Your task to perform on an android device: Open wifi settings Image 0: 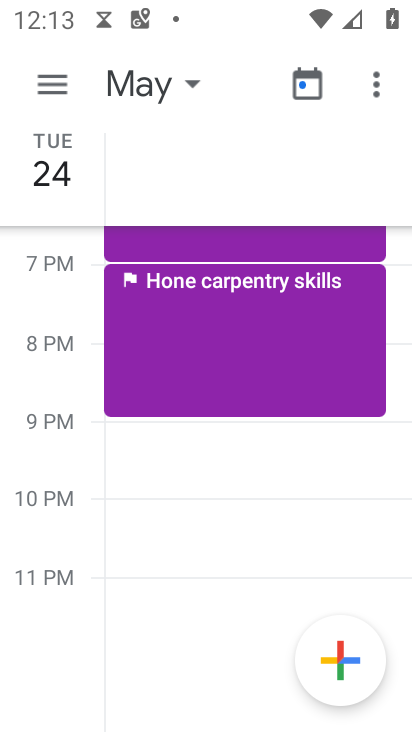
Step 0: press home button
Your task to perform on an android device: Open wifi settings Image 1: 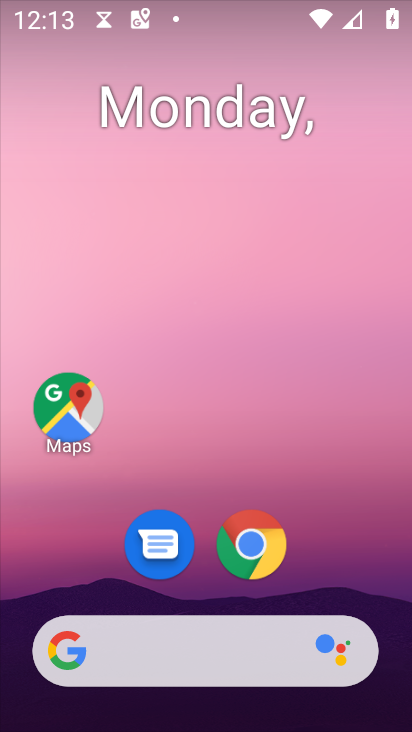
Step 1: drag from (354, 522) to (373, 309)
Your task to perform on an android device: Open wifi settings Image 2: 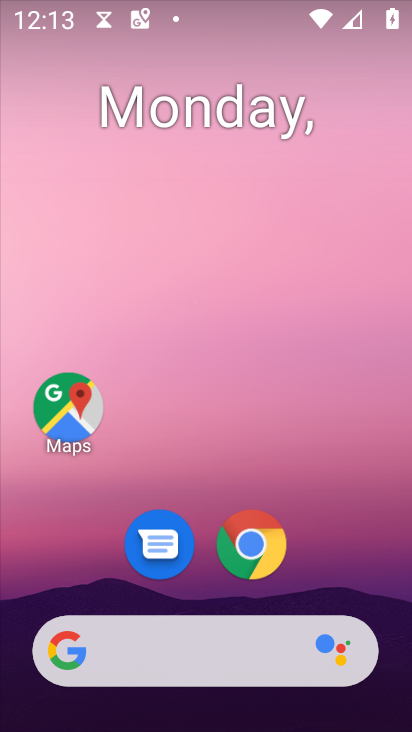
Step 2: drag from (279, 536) to (324, 262)
Your task to perform on an android device: Open wifi settings Image 3: 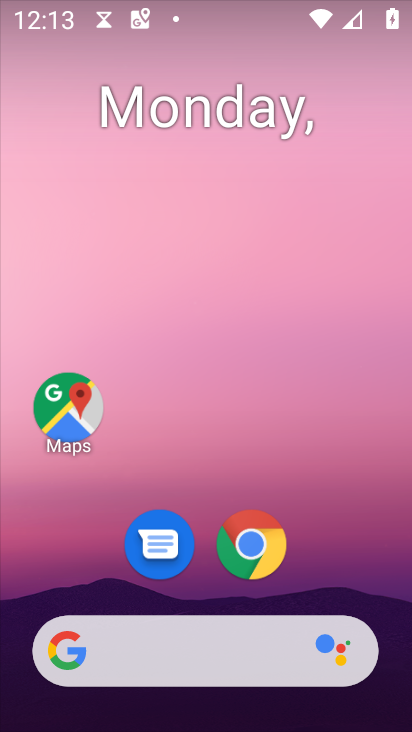
Step 3: click (315, 318)
Your task to perform on an android device: Open wifi settings Image 4: 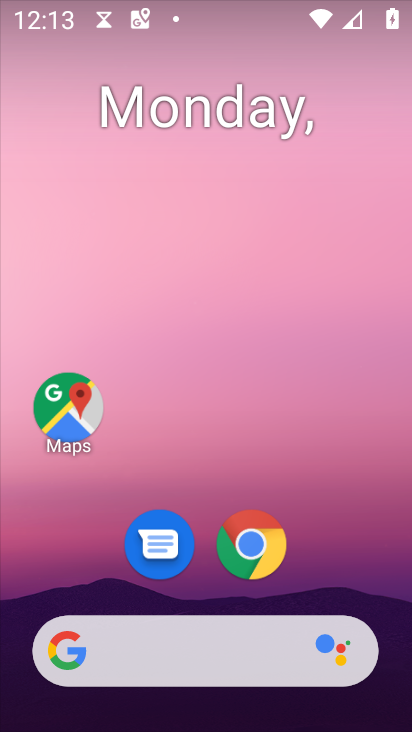
Step 4: drag from (308, 524) to (317, 282)
Your task to perform on an android device: Open wifi settings Image 5: 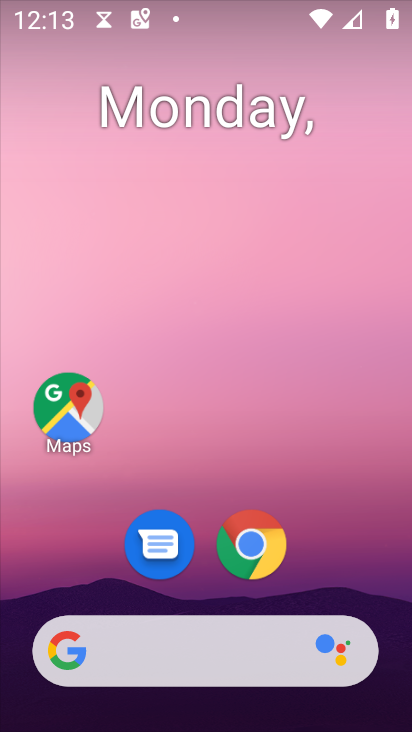
Step 5: drag from (294, 527) to (307, 287)
Your task to perform on an android device: Open wifi settings Image 6: 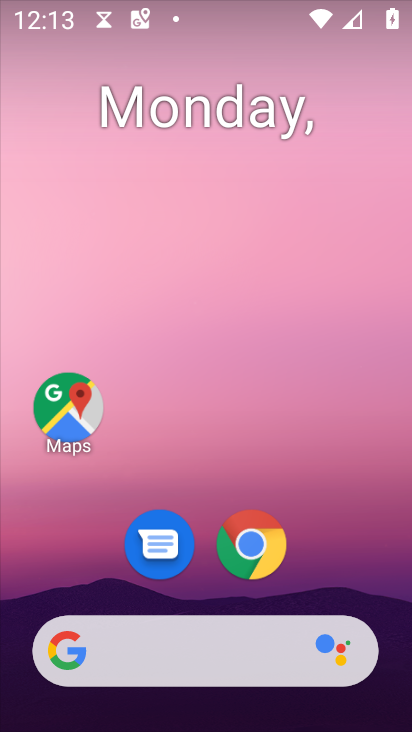
Step 6: drag from (229, 627) to (275, 297)
Your task to perform on an android device: Open wifi settings Image 7: 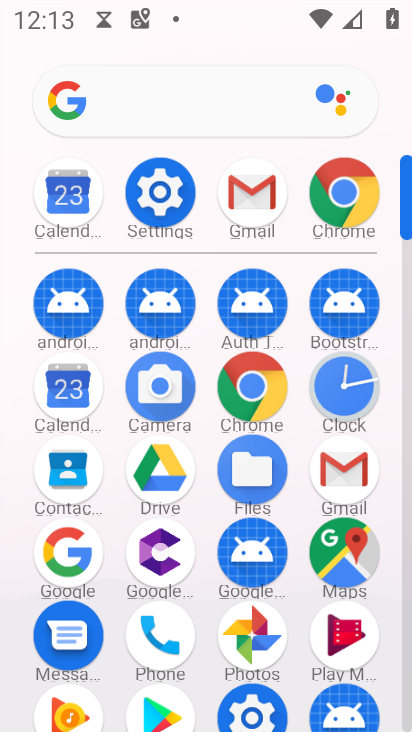
Step 7: click (143, 208)
Your task to perform on an android device: Open wifi settings Image 8: 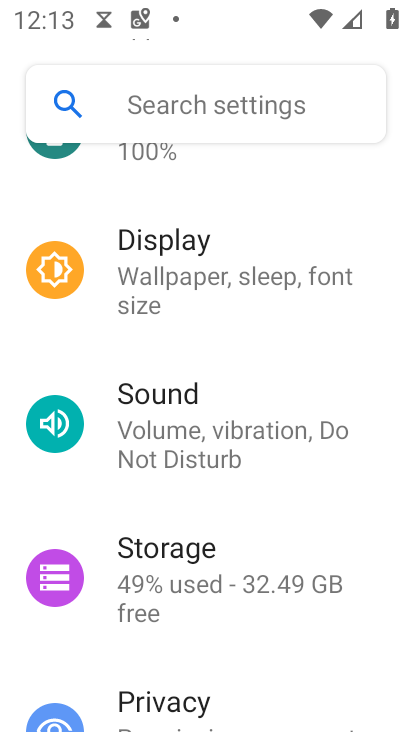
Step 8: drag from (317, 188) to (301, 662)
Your task to perform on an android device: Open wifi settings Image 9: 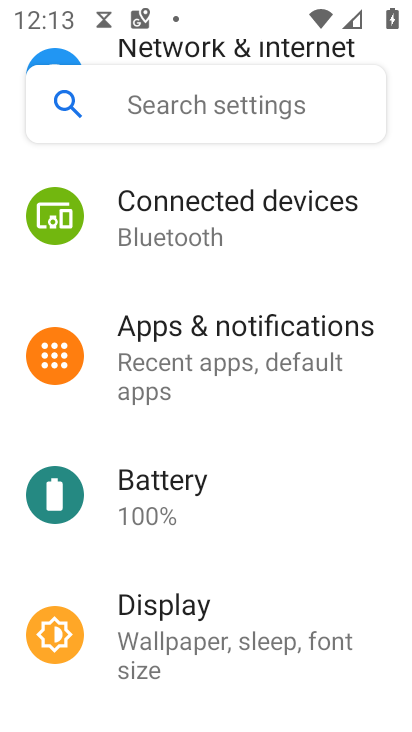
Step 9: drag from (300, 267) to (284, 650)
Your task to perform on an android device: Open wifi settings Image 10: 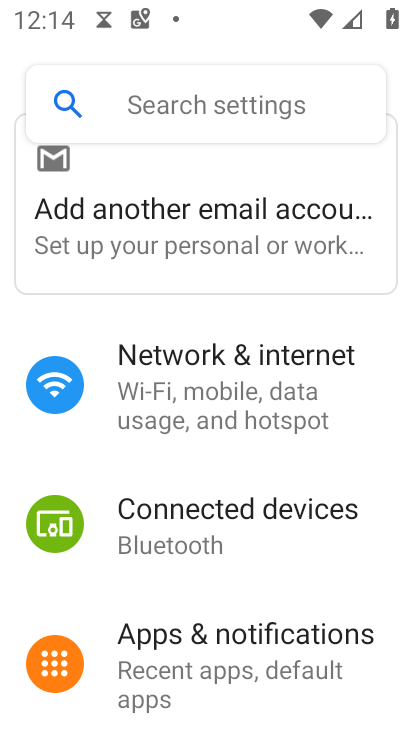
Step 10: click (205, 391)
Your task to perform on an android device: Open wifi settings Image 11: 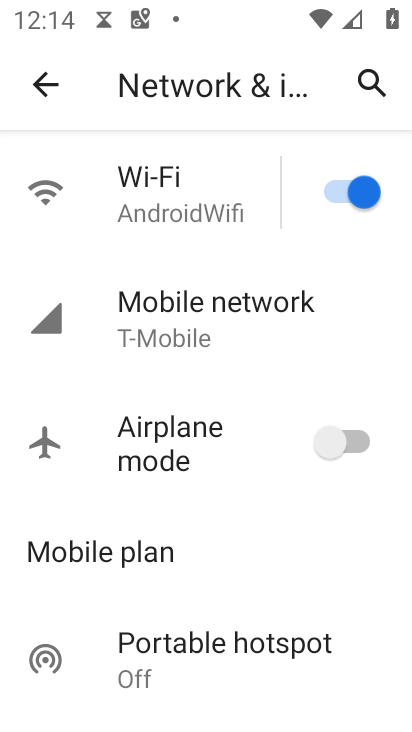
Step 11: task complete